Your task to perform on an android device: Go to location settings Image 0: 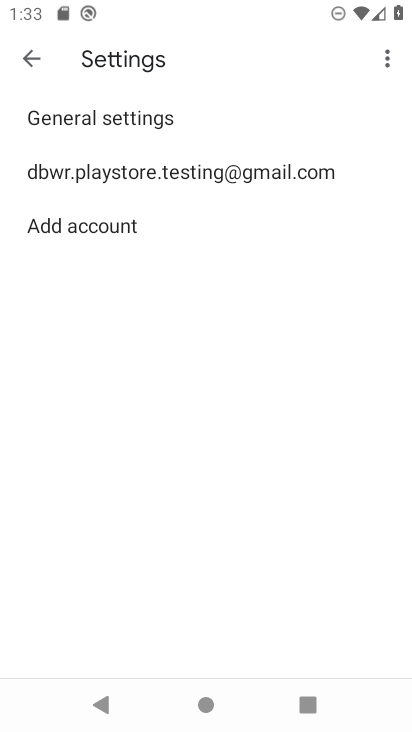
Step 0: press home button
Your task to perform on an android device: Go to location settings Image 1: 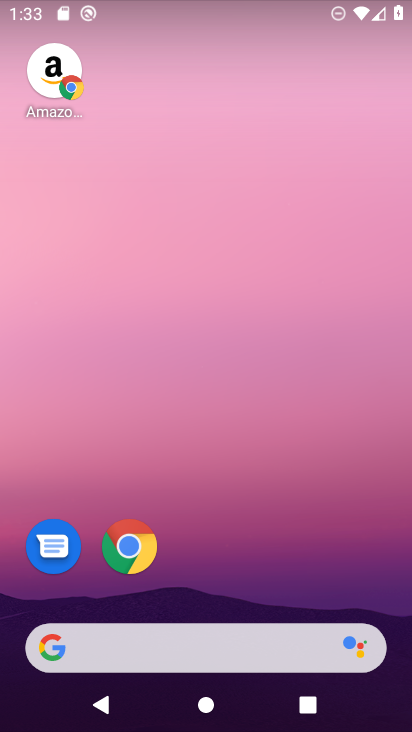
Step 1: drag from (318, 680) to (368, 188)
Your task to perform on an android device: Go to location settings Image 2: 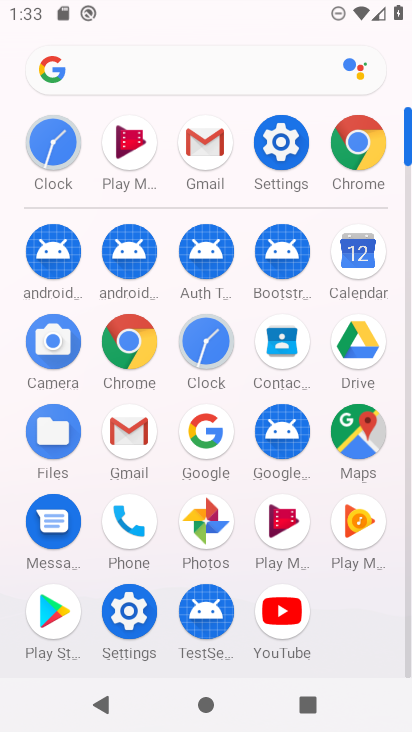
Step 2: click (262, 147)
Your task to perform on an android device: Go to location settings Image 3: 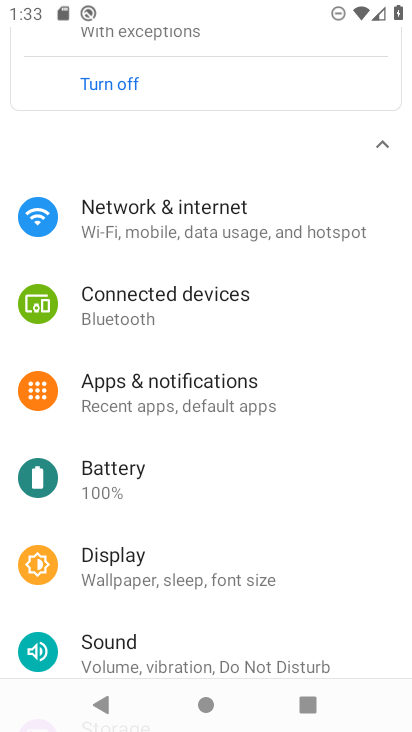
Step 3: drag from (197, 142) to (92, 494)
Your task to perform on an android device: Go to location settings Image 4: 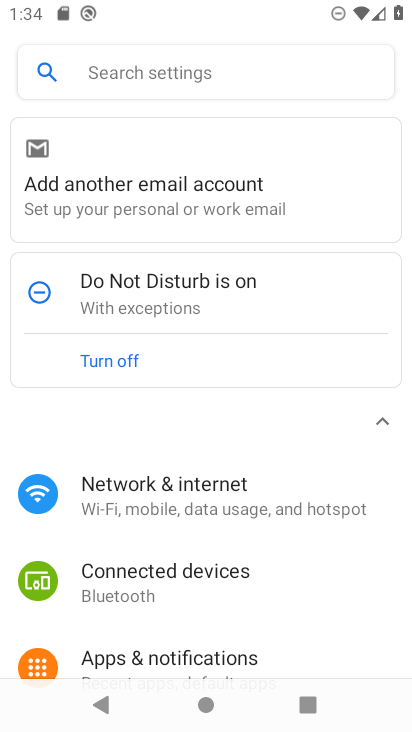
Step 4: click (157, 74)
Your task to perform on an android device: Go to location settings Image 5: 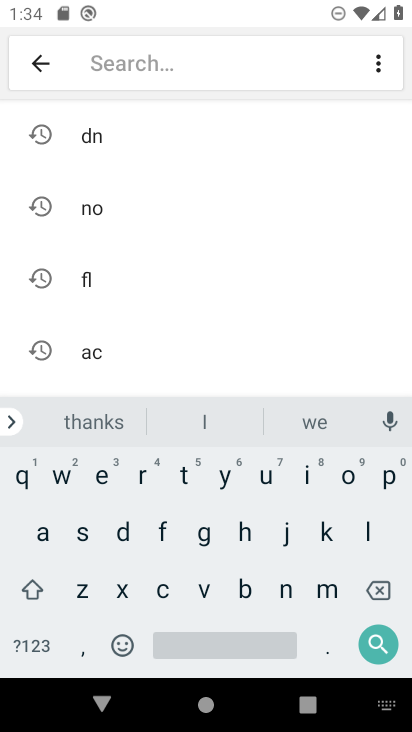
Step 5: click (370, 530)
Your task to perform on an android device: Go to location settings Image 6: 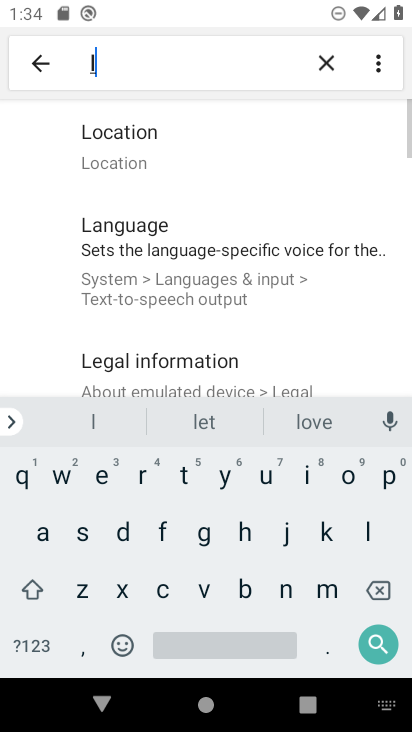
Step 6: click (343, 473)
Your task to perform on an android device: Go to location settings Image 7: 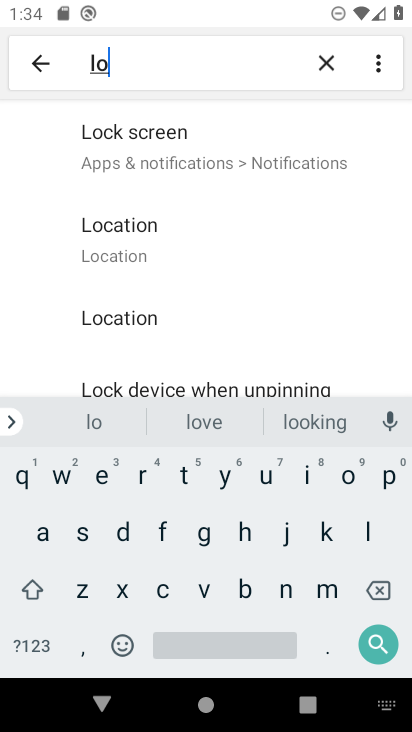
Step 7: click (112, 245)
Your task to perform on an android device: Go to location settings Image 8: 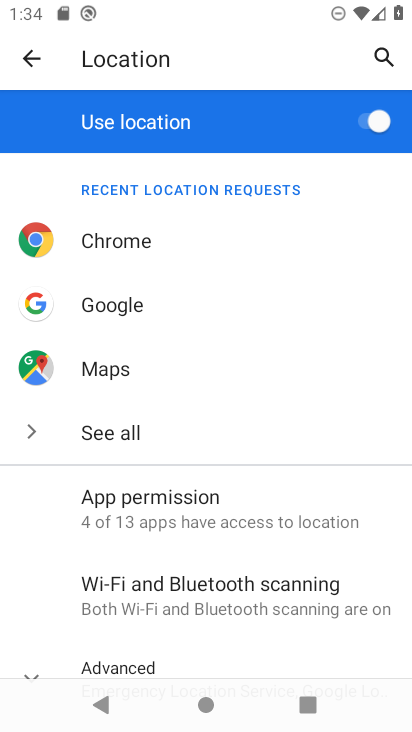
Step 8: task complete